Your task to perform on an android device: Open Chrome and go to settings Image 0: 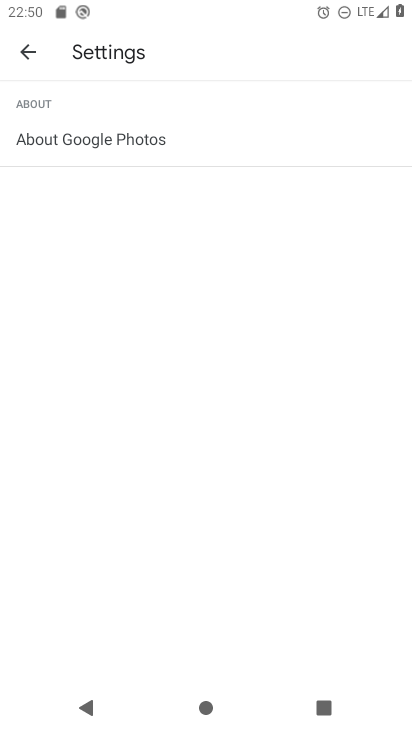
Step 0: drag from (161, 594) to (184, 317)
Your task to perform on an android device: Open Chrome and go to settings Image 1: 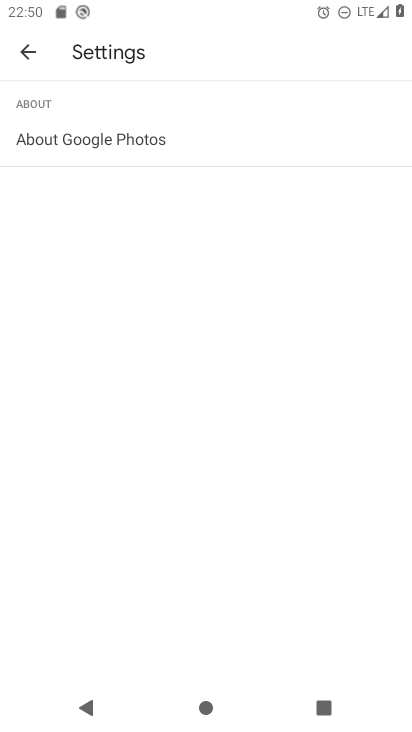
Step 1: press home button
Your task to perform on an android device: Open Chrome and go to settings Image 2: 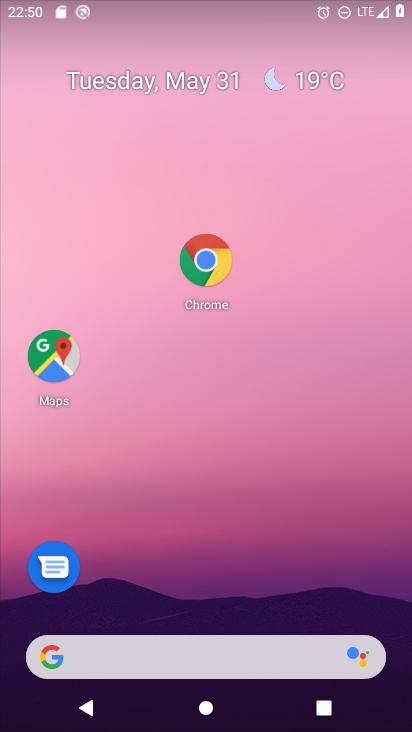
Step 2: click (205, 250)
Your task to perform on an android device: Open Chrome and go to settings Image 3: 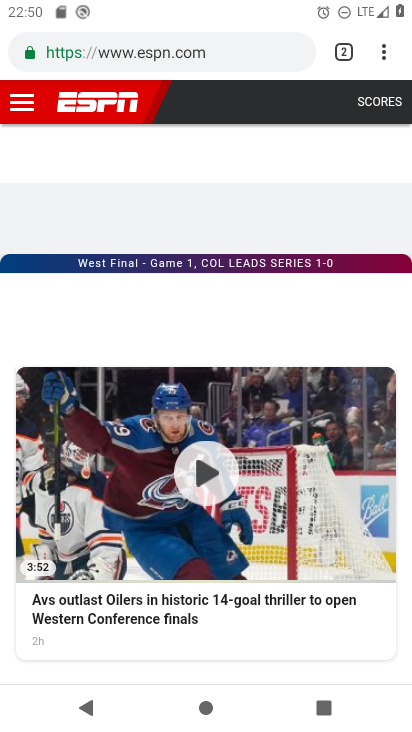
Step 3: click (383, 32)
Your task to perform on an android device: Open Chrome and go to settings Image 4: 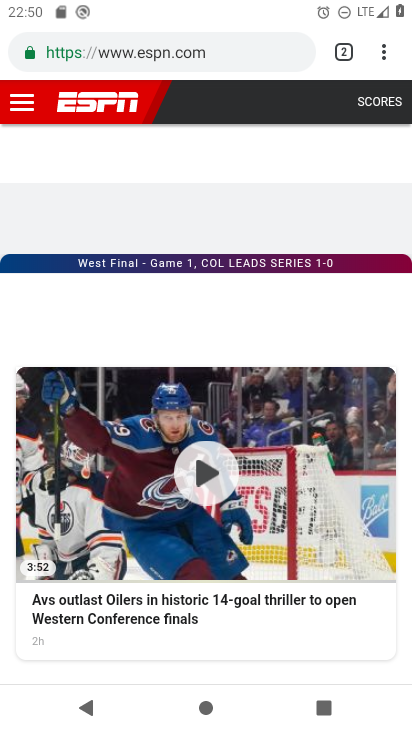
Step 4: click (396, 53)
Your task to perform on an android device: Open Chrome and go to settings Image 5: 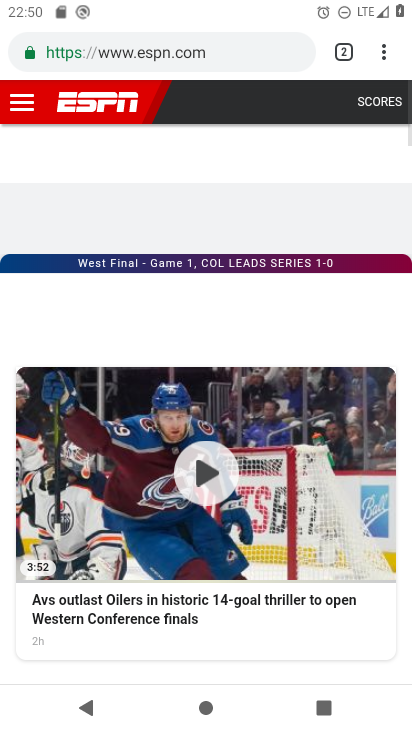
Step 5: click (377, 54)
Your task to perform on an android device: Open Chrome and go to settings Image 6: 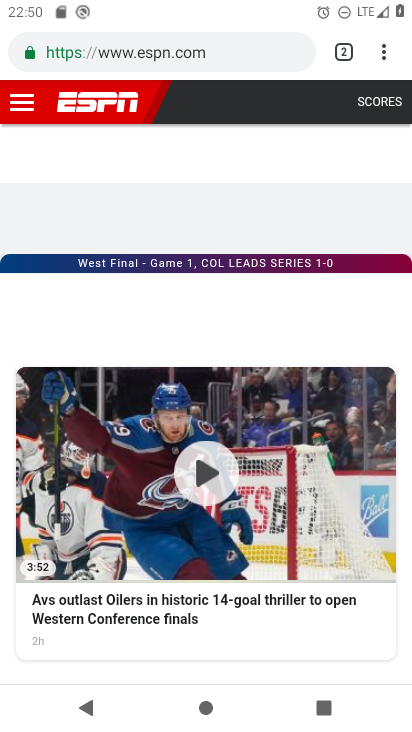
Step 6: click (386, 61)
Your task to perform on an android device: Open Chrome and go to settings Image 7: 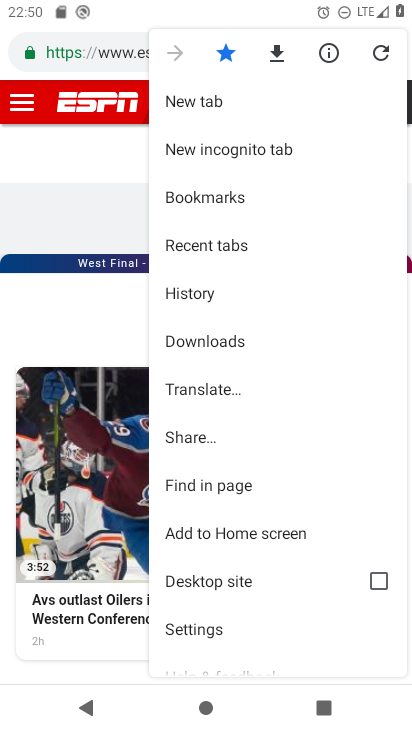
Step 7: click (188, 396)
Your task to perform on an android device: Open Chrome and go to settings Image 8: 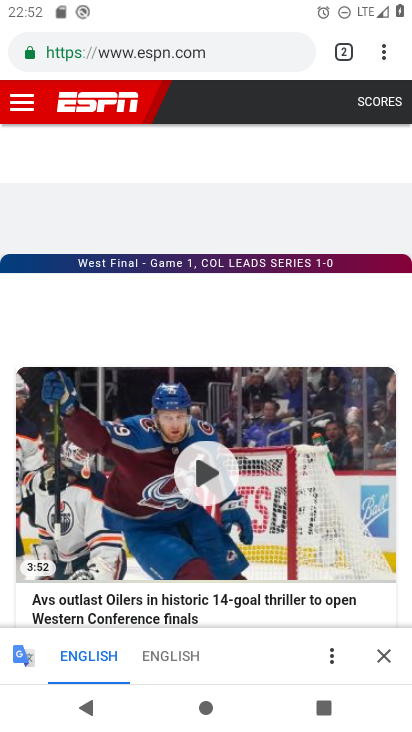
Step 8: click (391, 61)
Your task to perform on an android device: Open Chrome and go to settings Image 9: 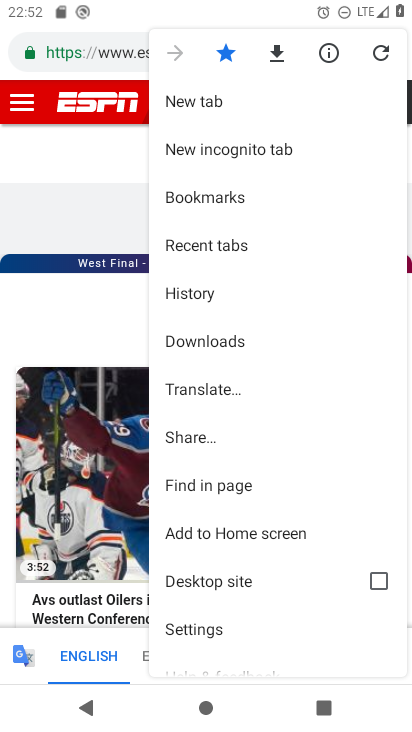
Step 9: click (183, 630)
Your task to perform on an android device: Open Chrome and go to settings Image 10: 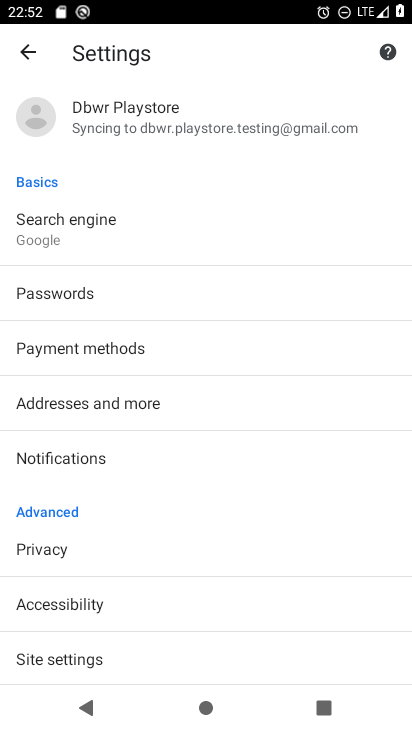
Step 10: task complete